Your task to perform on an android device: snooze an email in the gmail app Image 0: 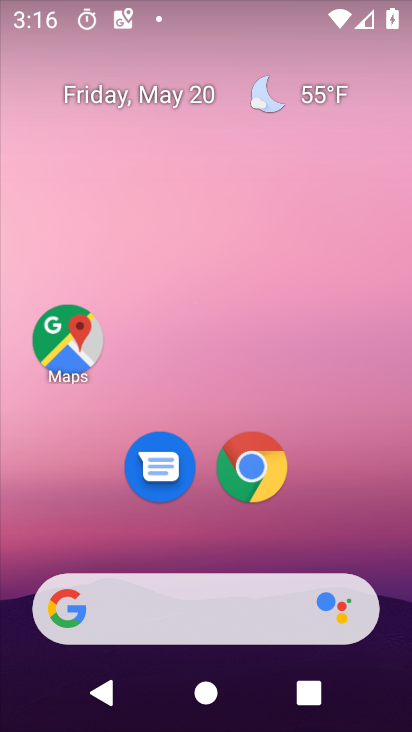
Step 0: drag from (220, 531) to (200, 62)
Your task to perform on an android device: snooze an email in the gmail app Image 1: 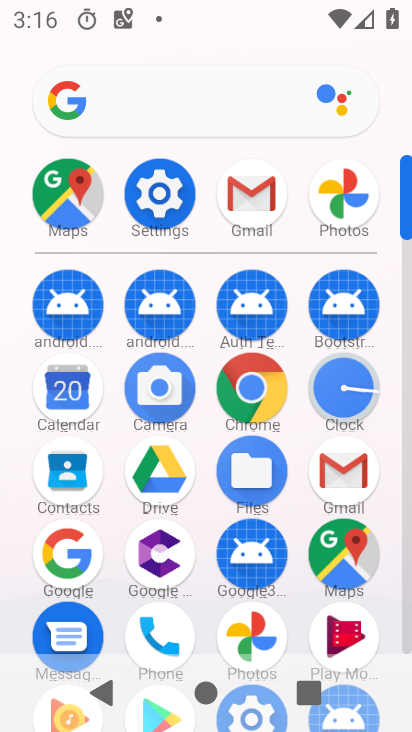
Step 1: click (358, 468)
Your task to perform on an android device: snooze an email in the gmail app Image 2: 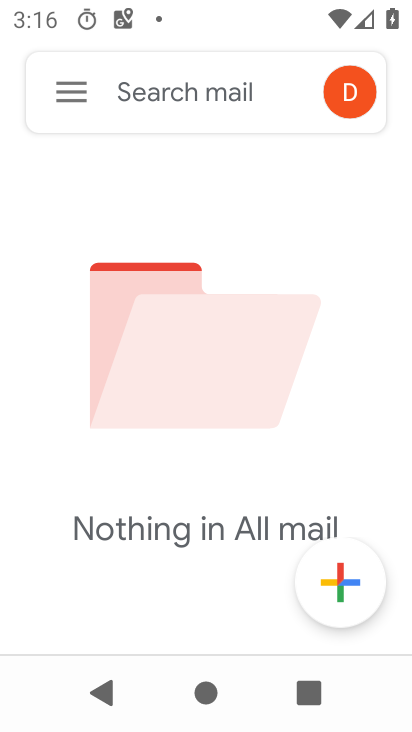
Step 2: task complete